Your task to perform on an android device: turn off location Image 0: 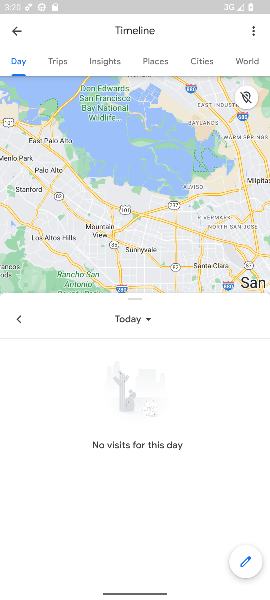
Step 0: press home button
Your task to perform on an android device: turn off location Image 1: 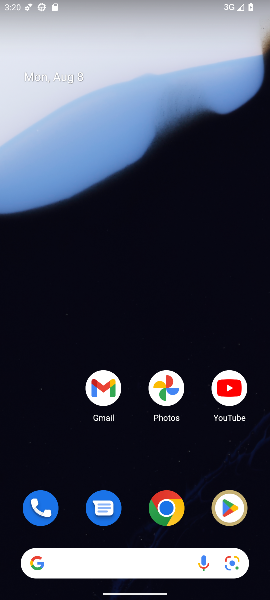
Step 1: drag from (132, 458) to (124, 137)
Your task to perform on an android device: turn off location Image 2: 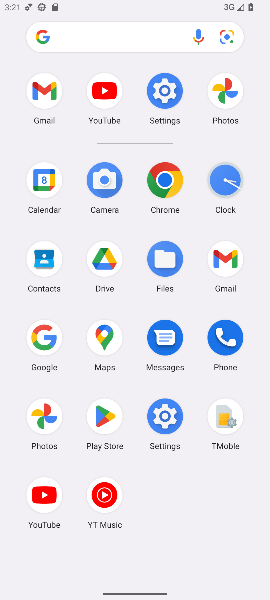
Step 2: click (169, 91)
Your task to perform on an android device: turn off location Image 3: 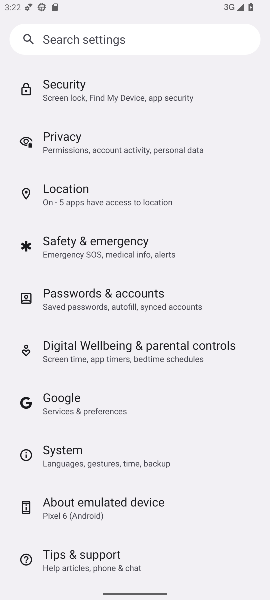
Step 3: click (66, 186)
Your task to perform on an android device: turn off location Image 4: 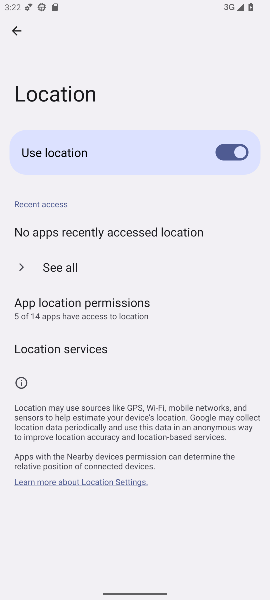
Step 4: click (241, 150)
Your task to perform on an android device: turn off location Image 5: 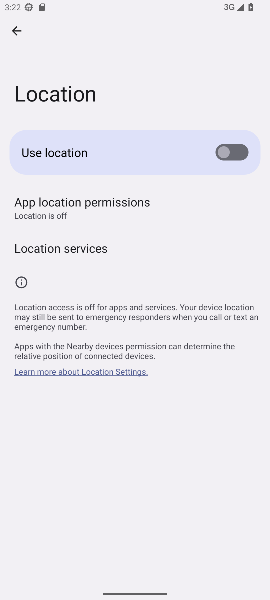
Step 5: task complete